Your task to perform on an android device: Clear all items from cart on target. Search for razer thresher on target, select the first entry, and add it to the cart. Image 0: 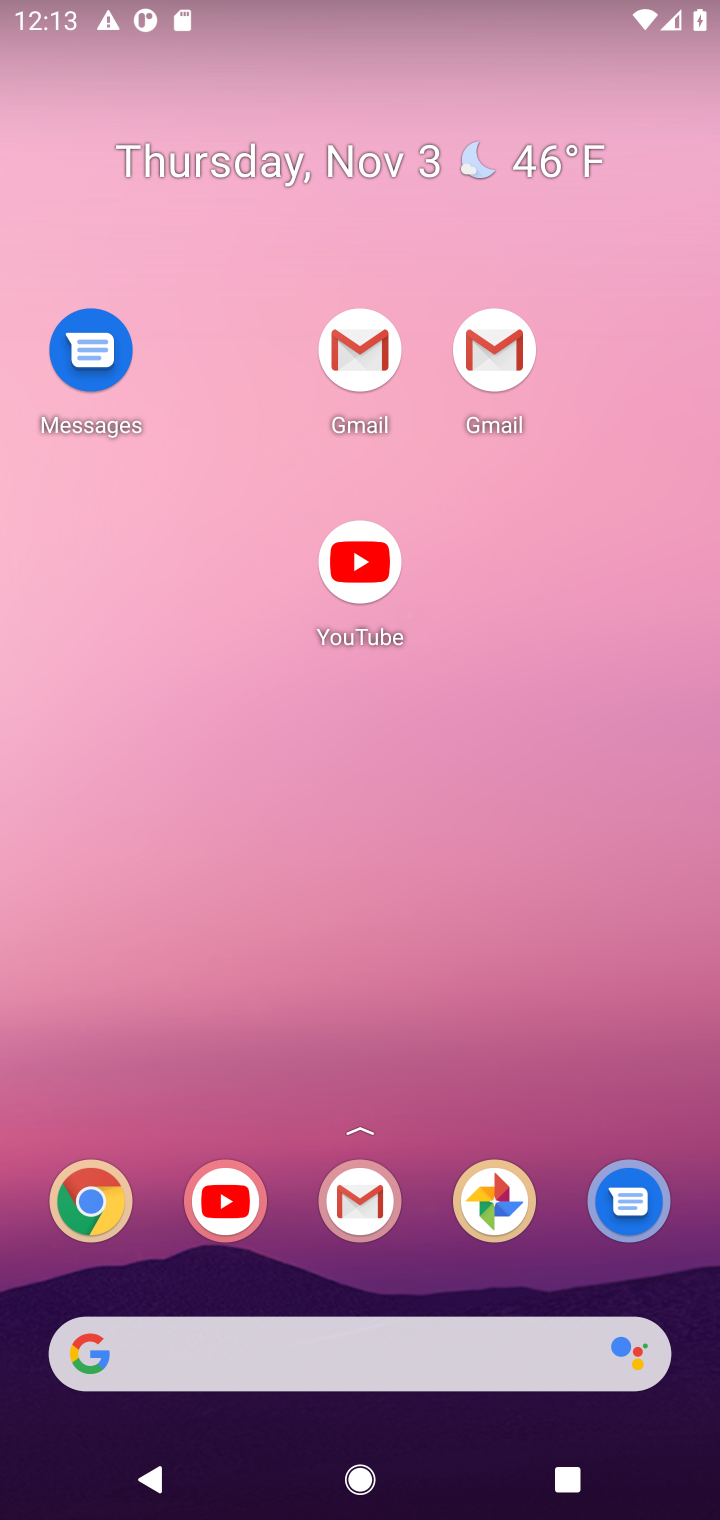
Step 0: drag from (423, 1277) to (440, 237)
Your task to perform on an android device: Clear all items from cart on target. Search for razer thresher on target, select the first entry, and add it to the cart. Image 1: 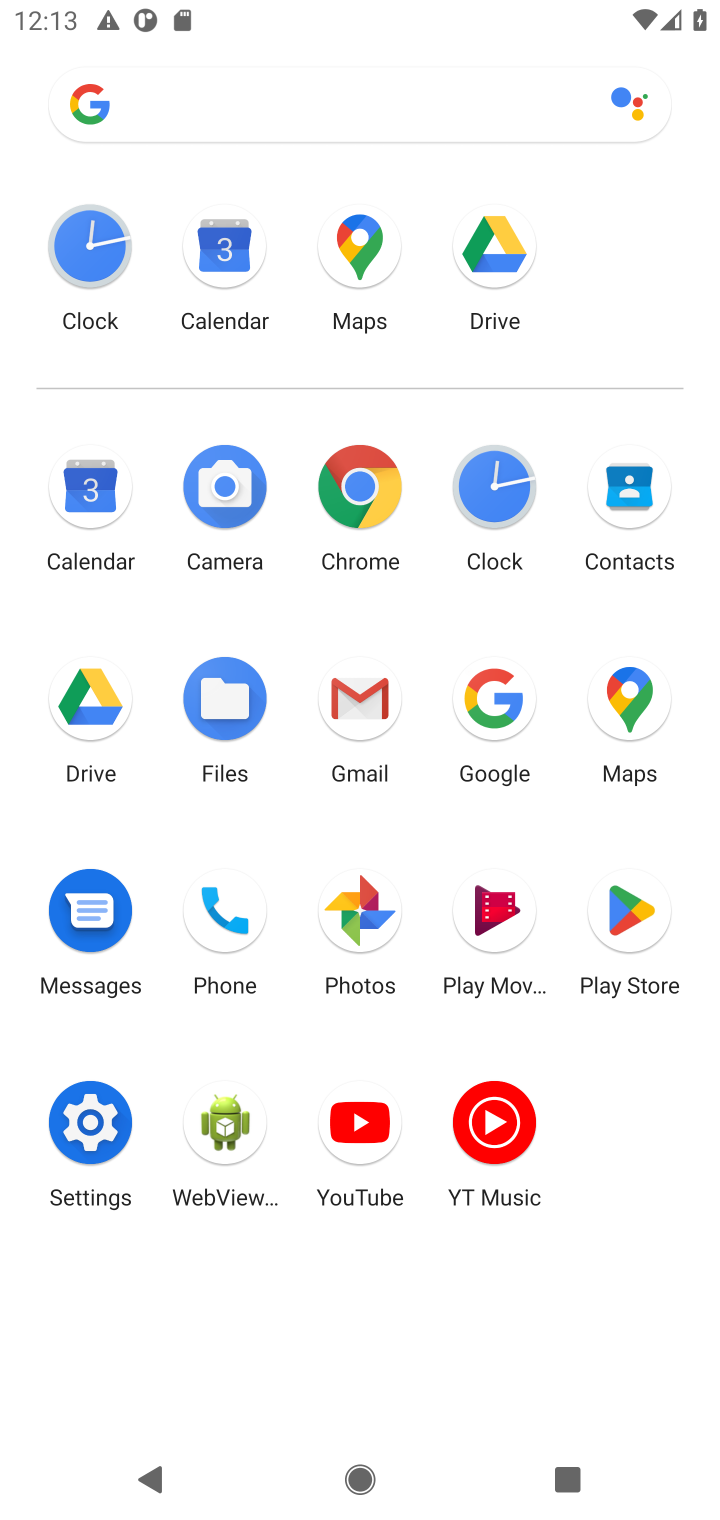
Step 1: click (357, 498)
Your task to perform on an android device: Clear all items from cart on target. Search for razer thresher on target, select the first entry, and add it to the cart. Image 2: 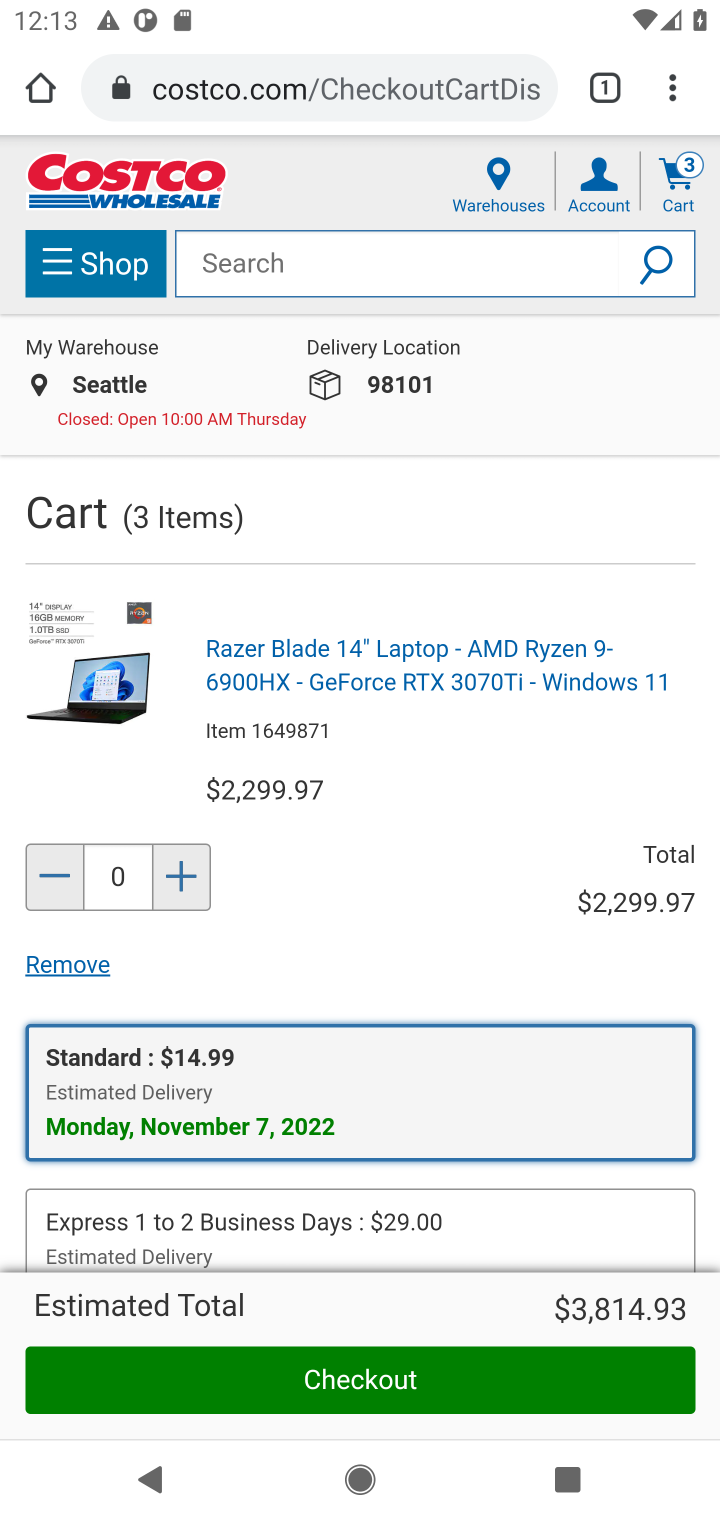
Step 2: click (373, 72)
Your task to perform on an android device: Clear all items from cart on target. Search for razer thresher on target, select the first entry, and add it to the cart. Image 3: 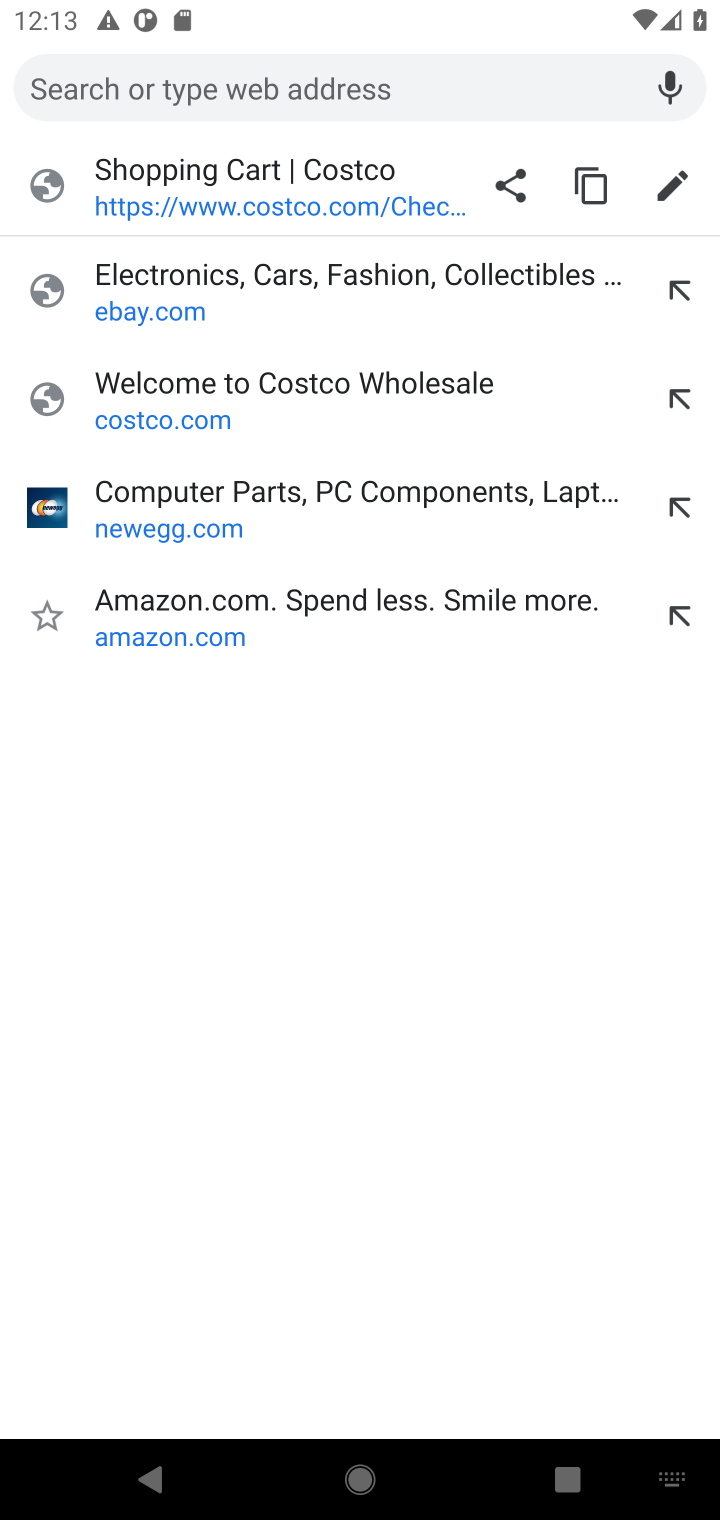
Step 3: type "target.com"
Your task to perform on an android device: Clear all items from cart on target. Search for razer thresher on target, select the first entry, and add it to the cart. Image 4: 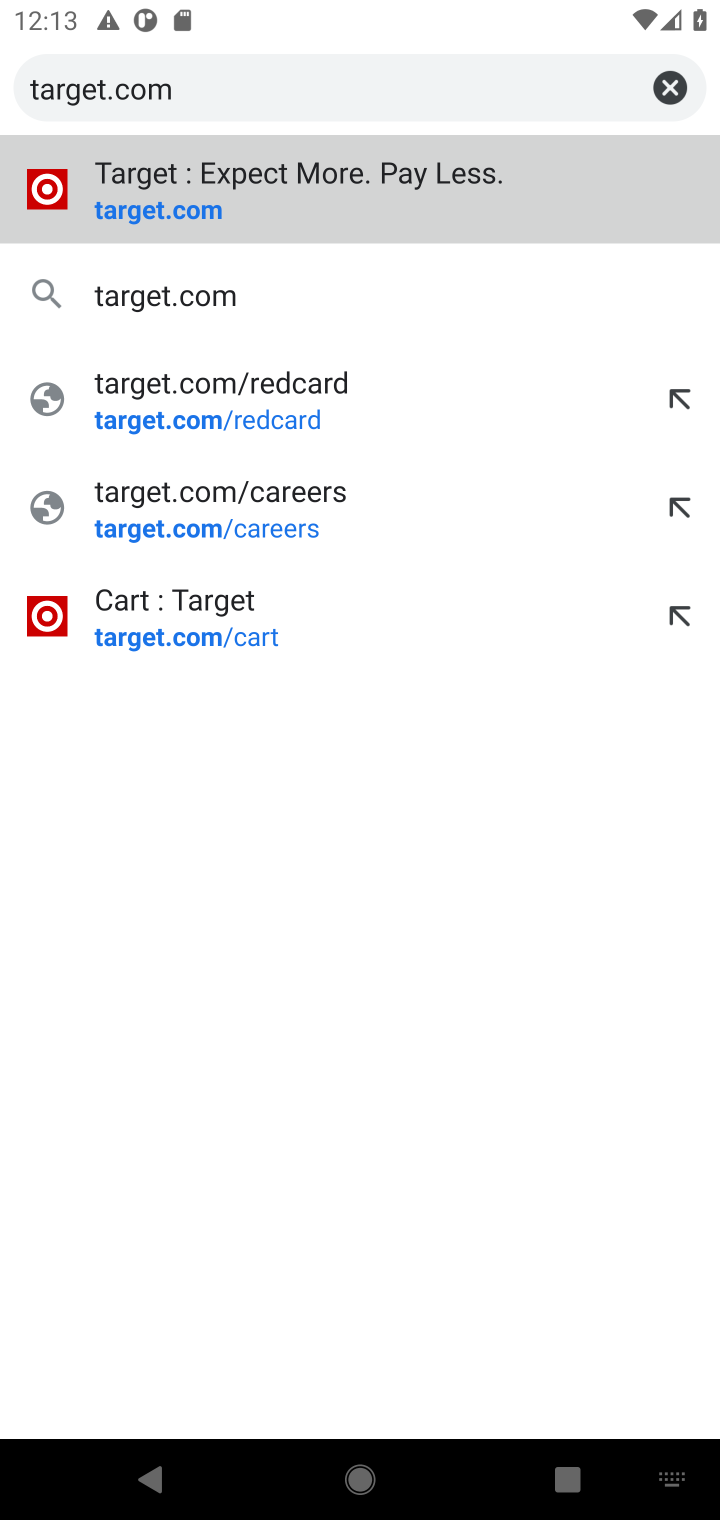
Step 4: press enter
Your task to perform on an android device: Clear all items from cart on target. Search for razer thresher on target, select the first entry, and add it to the cart. Image 5: 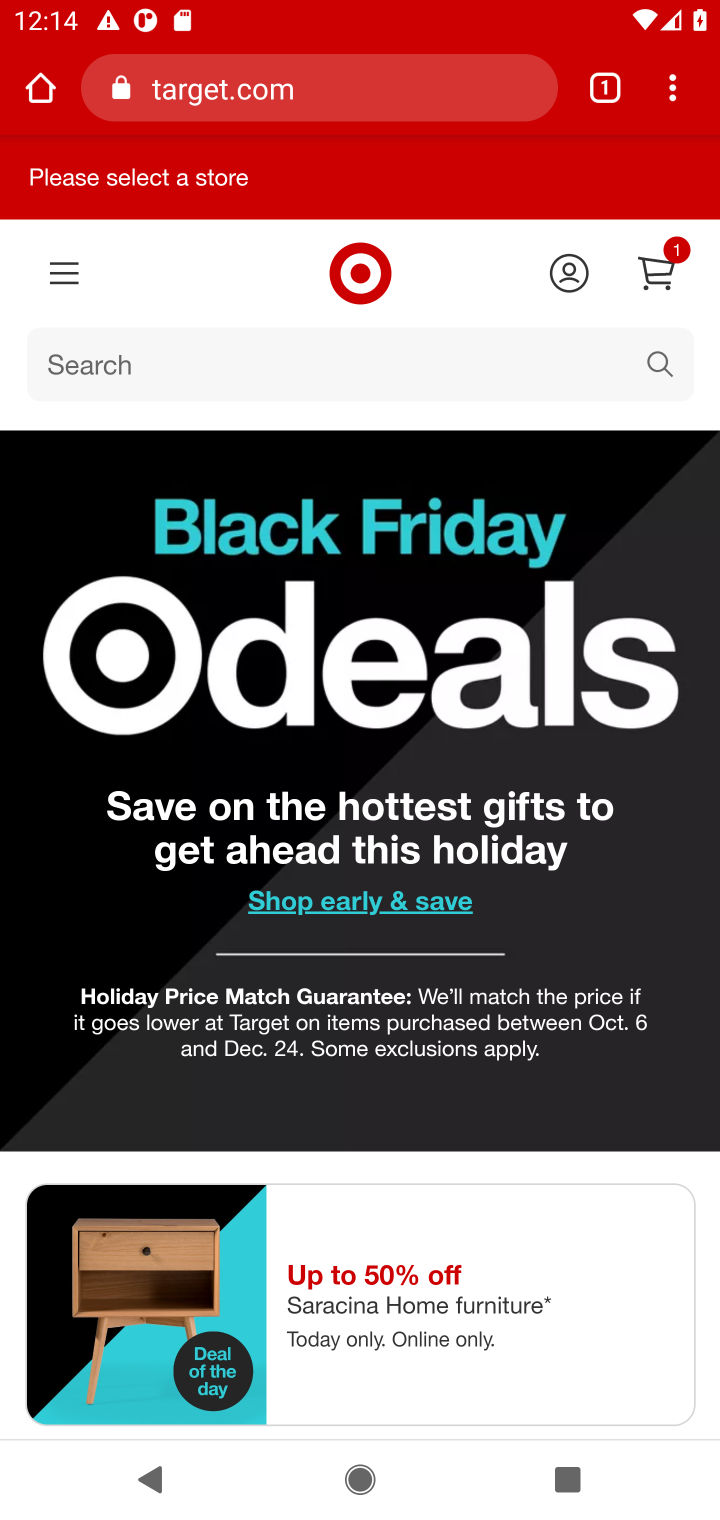
Step 5: click (424, 1272)
Your task to perform on an android device: Clear all items from cart on target. Search for razer thresher on target, select the first entry, and add it to the cart. Image 6: 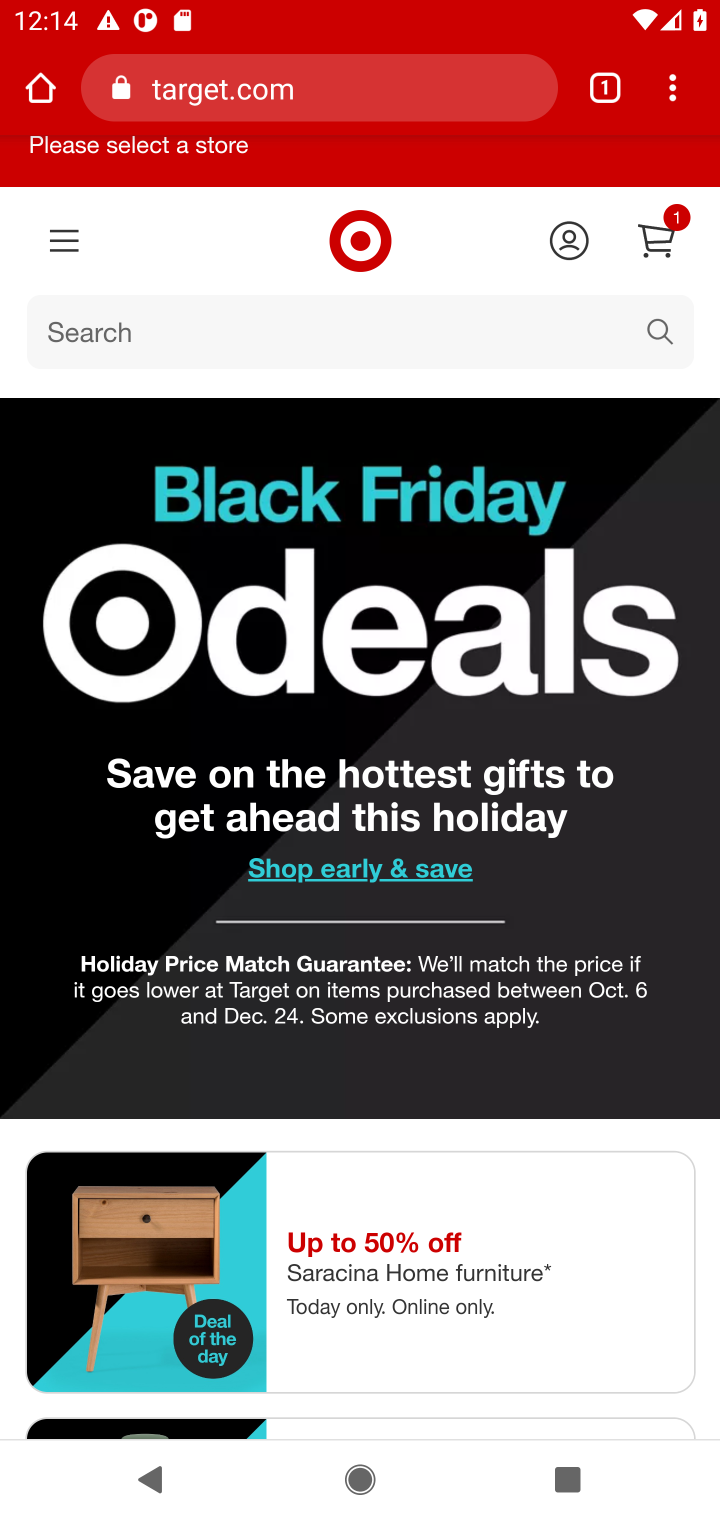
Step 6: drag from (400, 177) to (404, 312)
Your task to perform on an android device: Clear all items from cart on target. Search for razer thresher on target, select the first entry, and add it to the cart. Image 7: 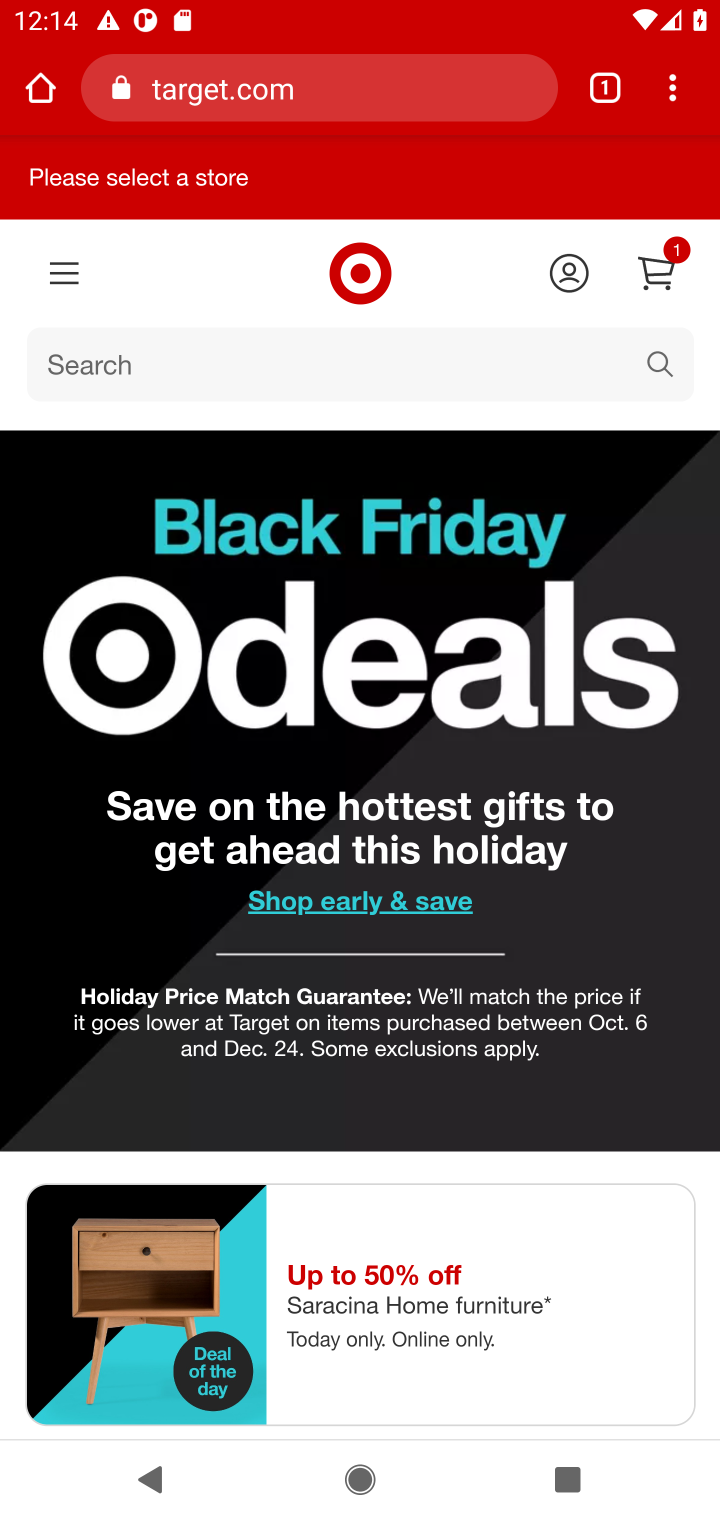
Step 7: click (656, 264)
Your task to perform on an android device: Clear all items from cart on target. Search for razer thresher on target, select the first entry, and add it to the cart. Image 8: 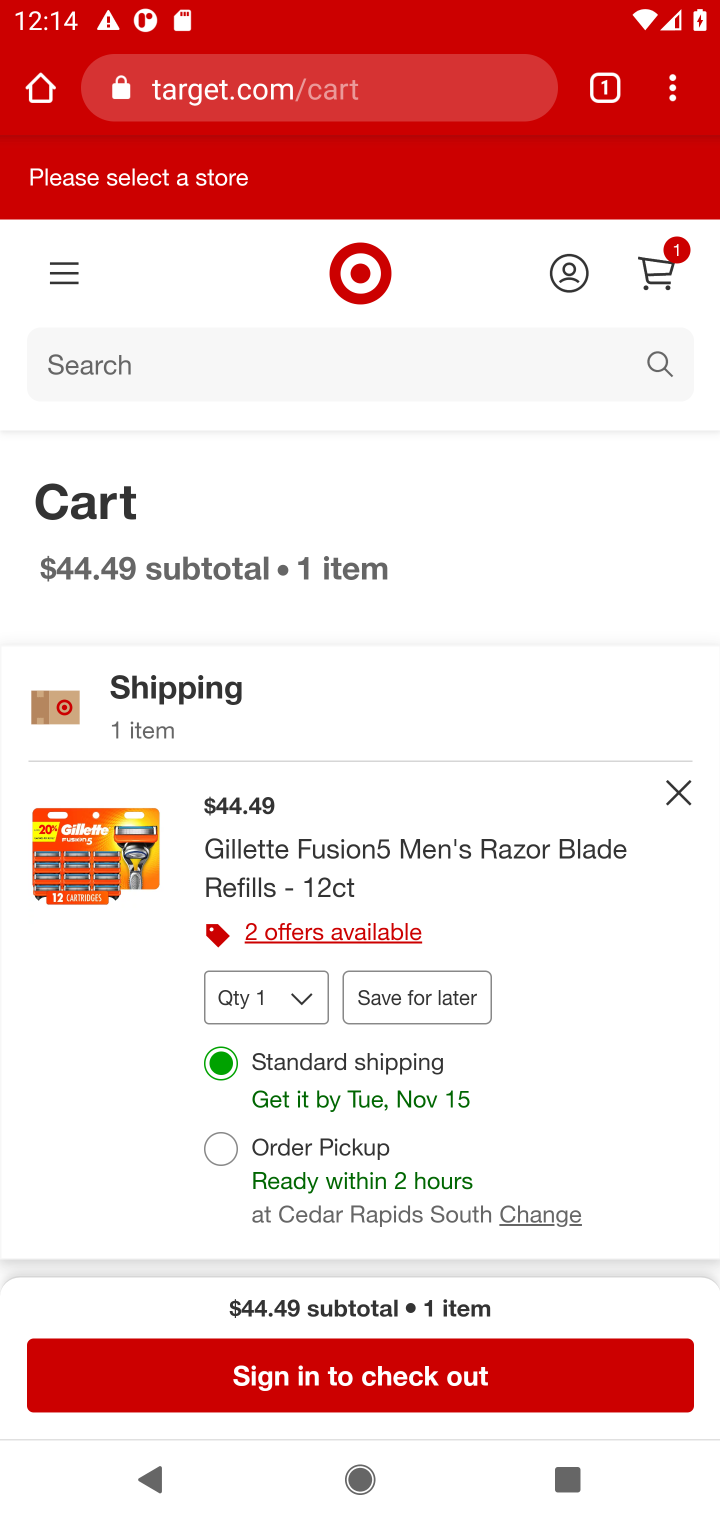
Step 8: click (671, 795)
Your task to perform on an android device: Clear all items from cart on target. Search for razer thresher on target, select the first entry, and add it to the cart. Image 9: 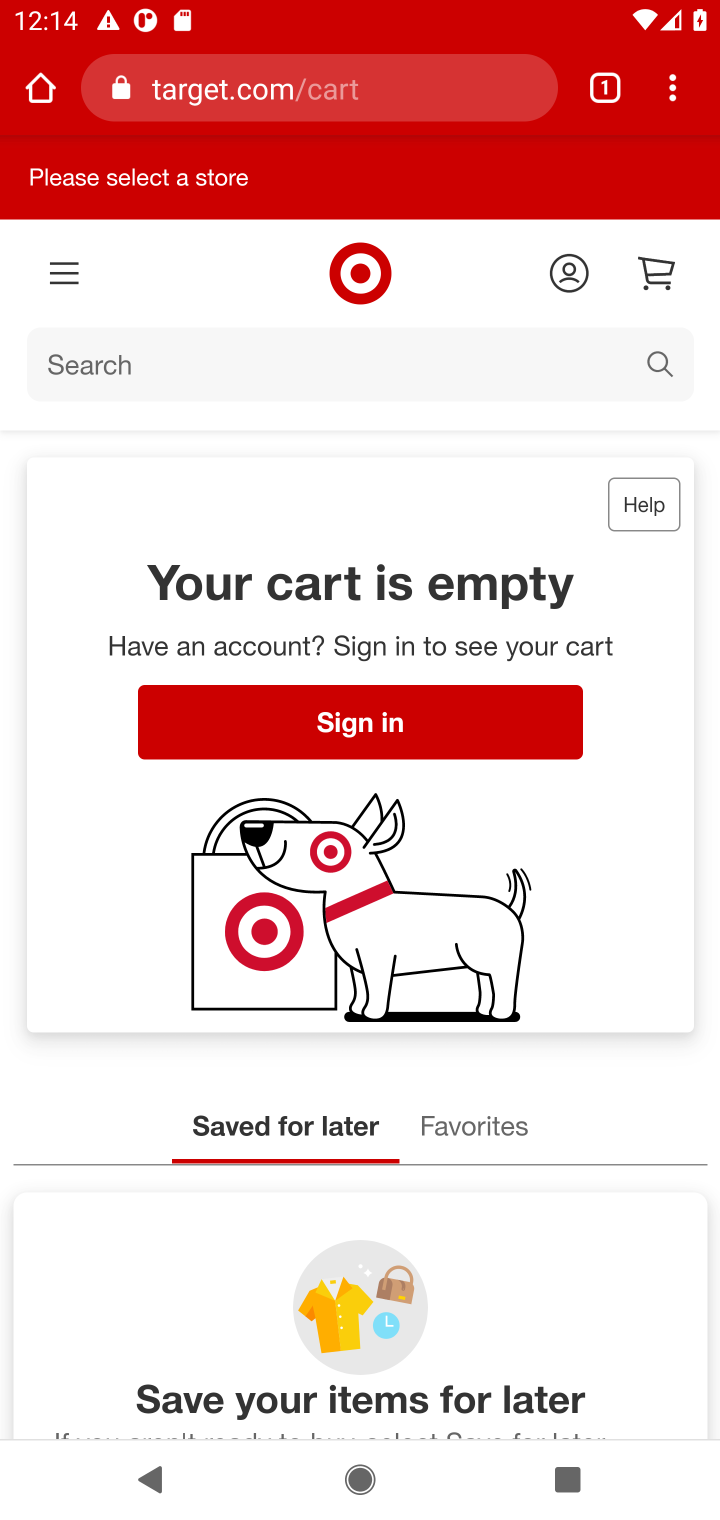
Step 9: click (564, 361)
Your task to perform on an android device: Clear all items from cart on target. Search for razer thresher on target, select the first entry, and add it to the cart. Image 10: 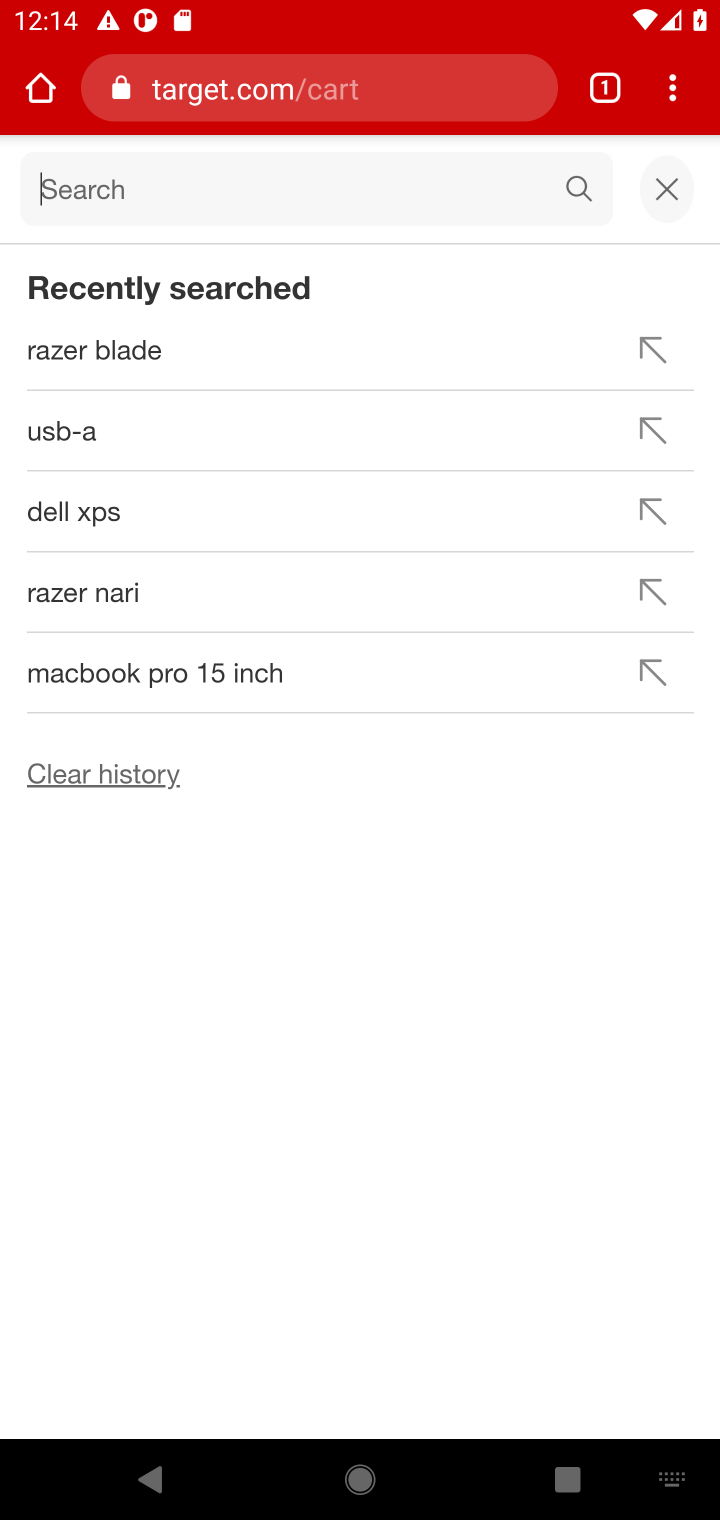
Step 10: type "razer thresher"
Your task to perform on an android device: Clear all items from cart on target. Search for razer thresher on target, select the first entry, and add it to the cart. Image 11: 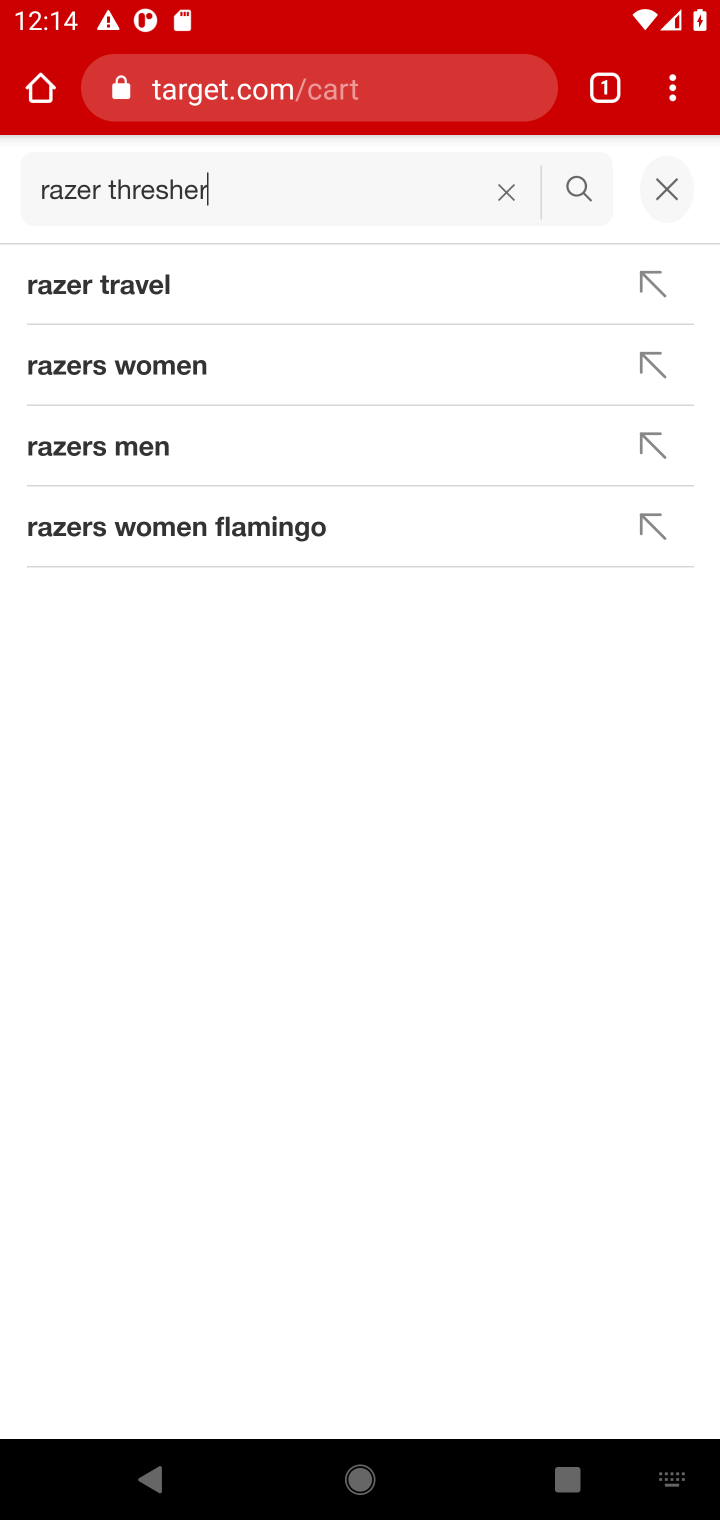
Step 11: press enter
Your task to perform on an android device: Clear all items from cart on target. Search for razer thresher on target, select the first entry, and add it to the cart. Image 12: 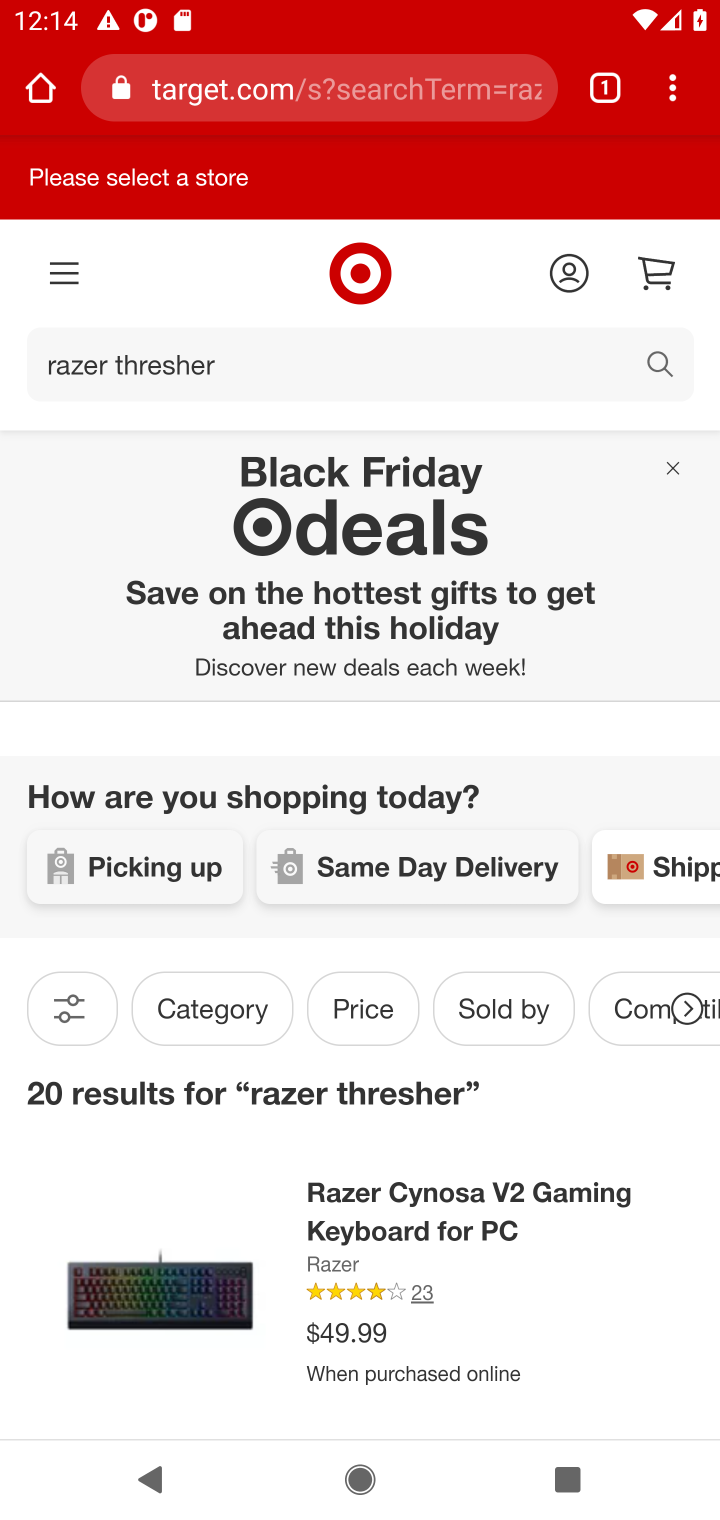
Step 12: task complete